Your task to perform on an android device: turn on translation in the chrome app Image 0: 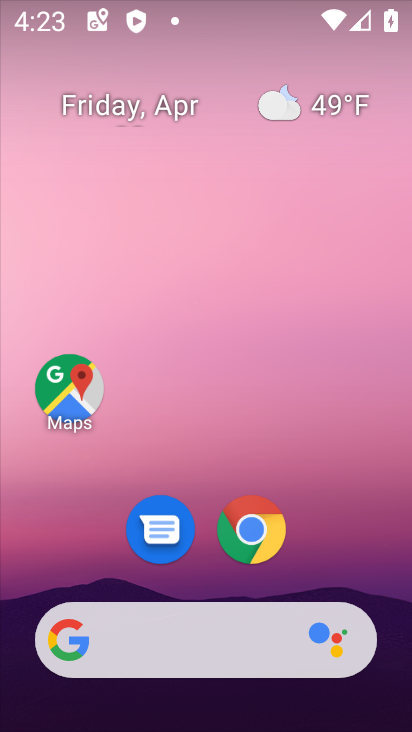
Step 0: click (259, 531)
Your task to perform on an android device: turn on translation in the chrome app Image 1: 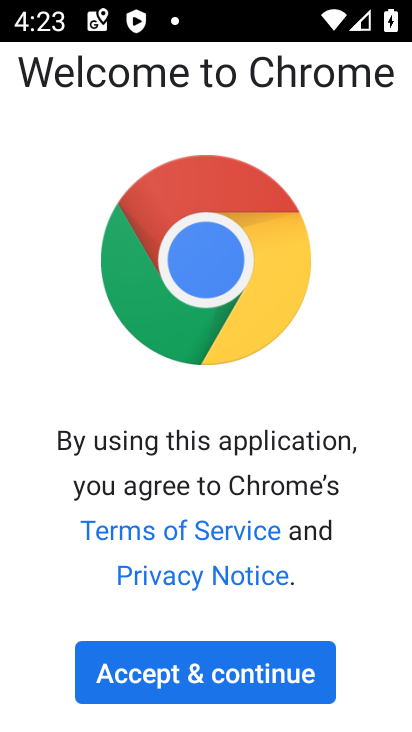
Step 1: click (249, 660)
Your task to perform on an android device: turn on translation in the chrome app Image 2: 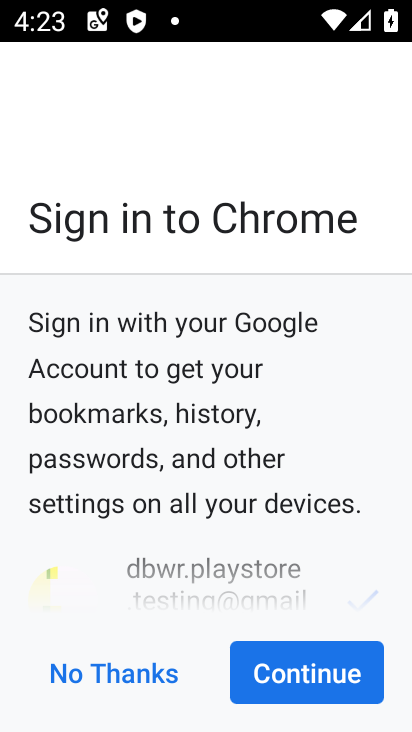
Step 2: click (298, 670)
Your task to perform on an android device: turn on translation in the chrome app Image 3: 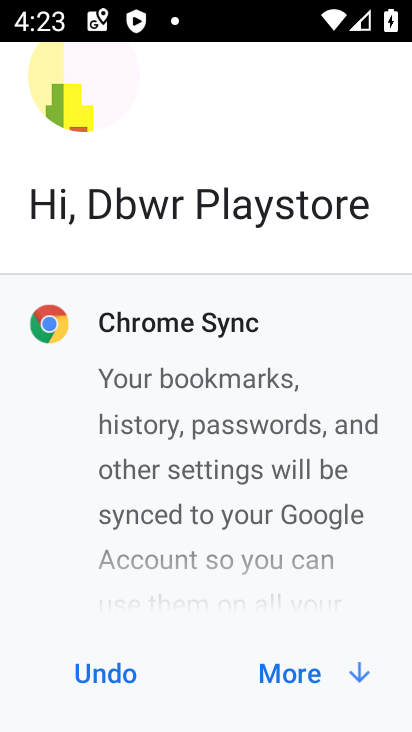
Step 3: click (296, 666)
Your task to perform on an android device: turn on translation in the chrome app Image 4: 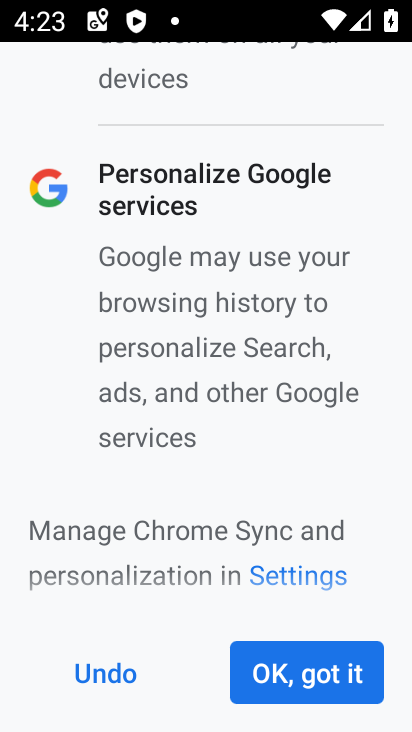
Step 4: click (295, 665)
Your task to perform on an android device: turn on translation in the chrome app Image 5: 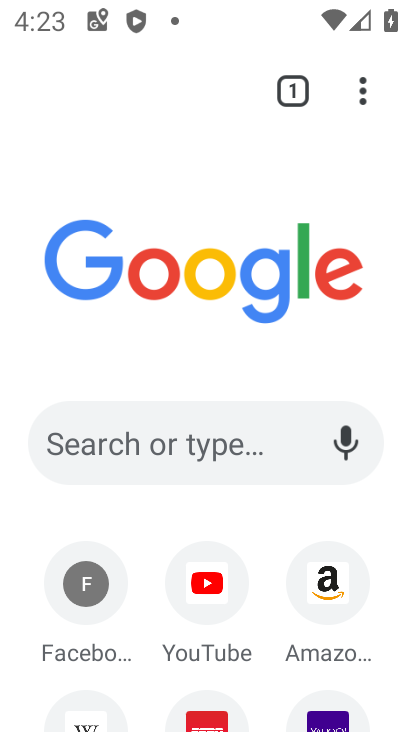
Step 5: drag from (361, 90) to (194, 521)
Your task to perform on an android device: turn on translation in the chrome app Image 6: 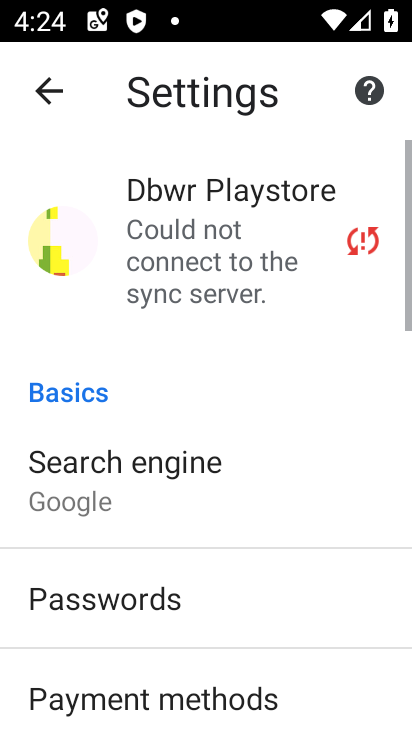
Step 6: drag from (174, 681) to (182, 233)
Your task to perform on an android device: turn on translation in the chrome app Image 7: 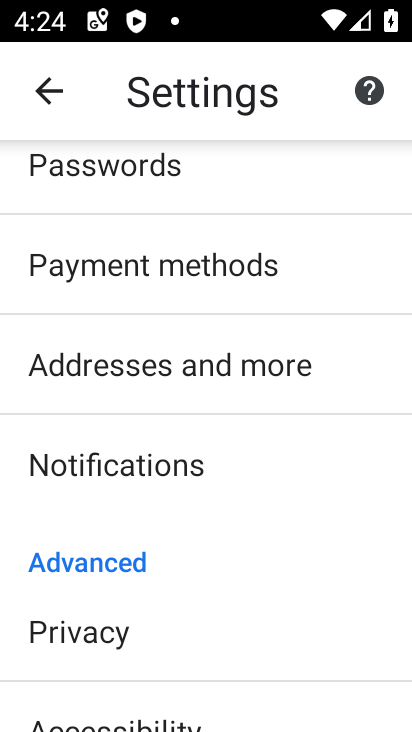
Step 7: drag from (198, 668) to (195, 289)
Your task to perform on an android device: turn on translation in the chrome app Image 8: 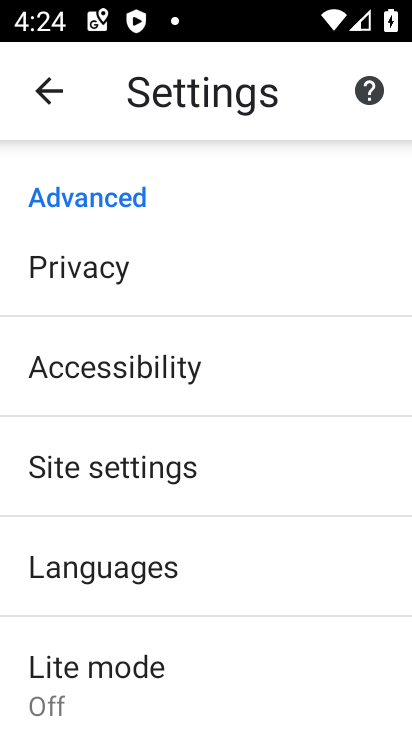
Step 8: click (124, 568)
Your task to perform on an android device: turn on translation in the chrome app Image 9: 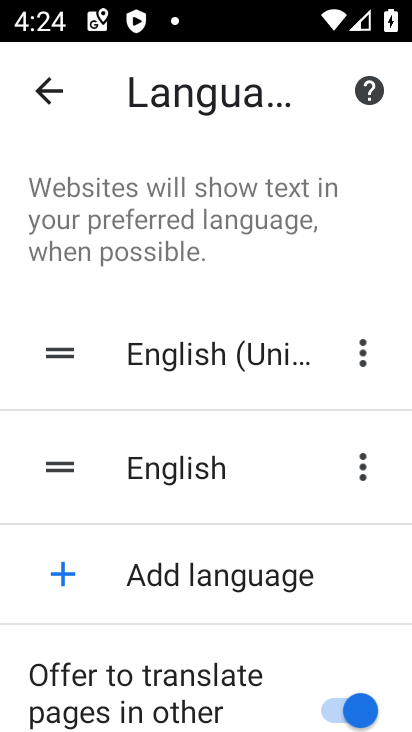
Step 9: task complete